Your task to perform on an android device: turn off data saver in the chrome app Image 0: 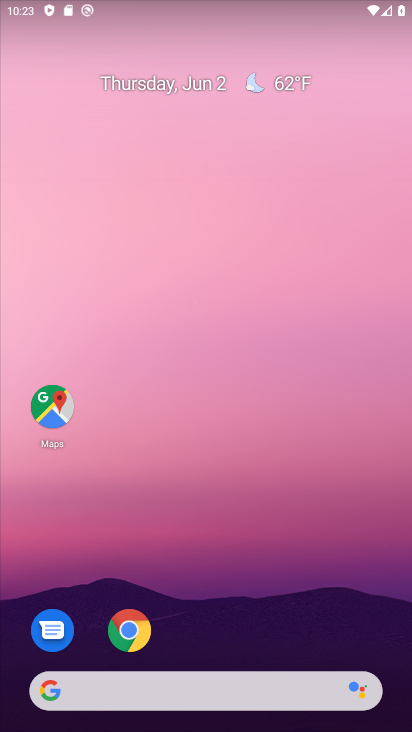
Step 0: press home button
Your task to perform on an android device: turn off data saver in the chrome app Image 1: 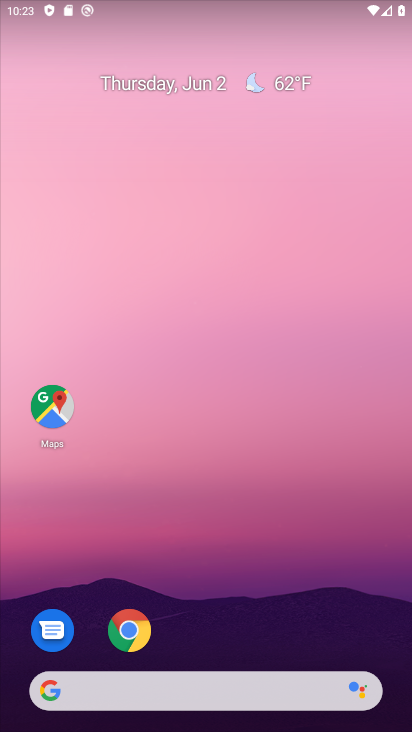
Step 1: click (132, 636)
Your task to perform on an android device: turn off data saver in the chrome app Image 2: 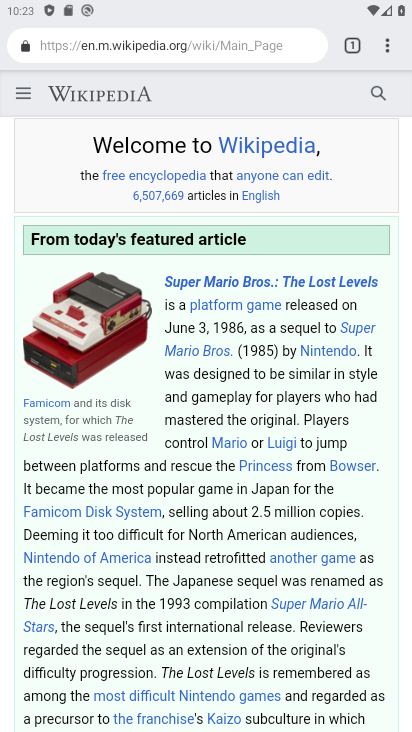
Step 2: drag from (390, 49) to (236, 557)
Your task to perform on an android device: turn off data saver in the chrome app Image 3: 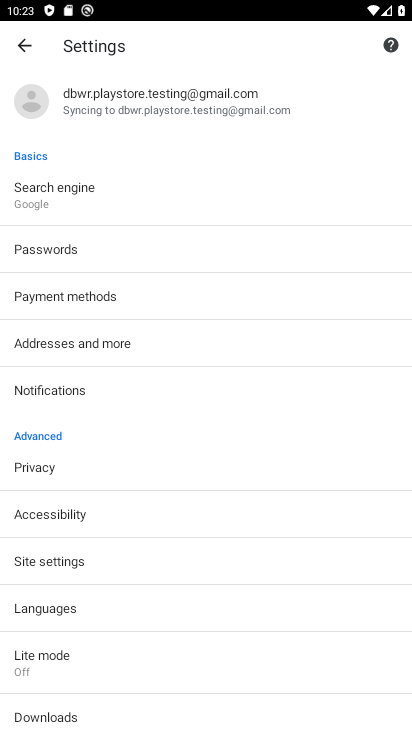
Step 3: click (65, 653)
Your task to perform on an android device: turn off data saver in the chrome app Image 4: 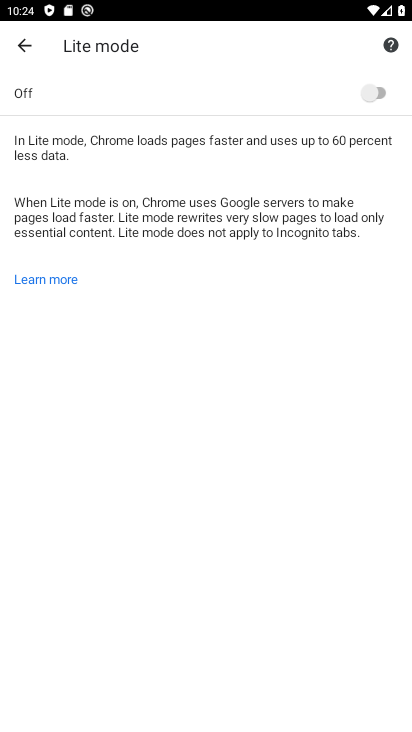
Step 4: task complete